Your task to perform on an android device: Go to network settings Image 0: 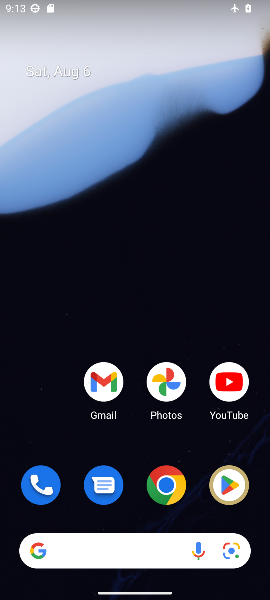
Step 0: drag from (131, 430) to (164, 9)
Your task to perform on an android device: Go to network settings Image 1: 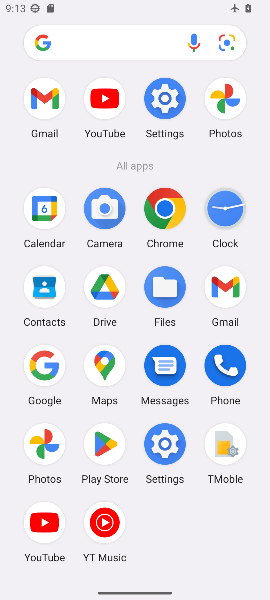
Step 1: click (162, 447)
Your task to perform on an android device: Go to network settings Image 2: 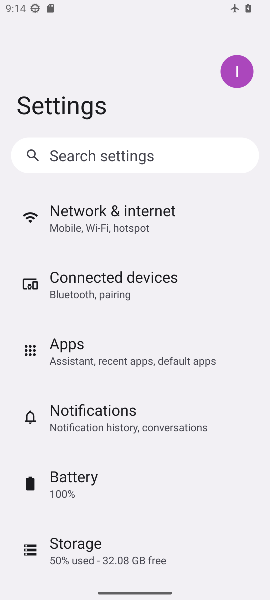
Step 2: click (97, 212)
Your task to perform on an android device: Go to network settings Image 3: 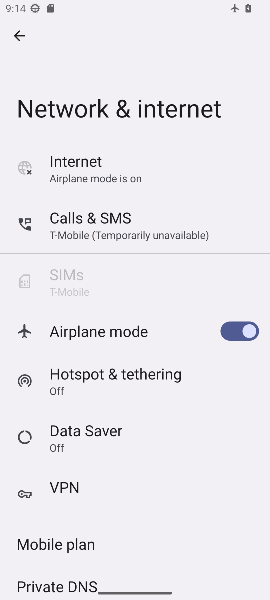
Step 3: task complete